Your task to perform on an android device: Open display settings Image 0: 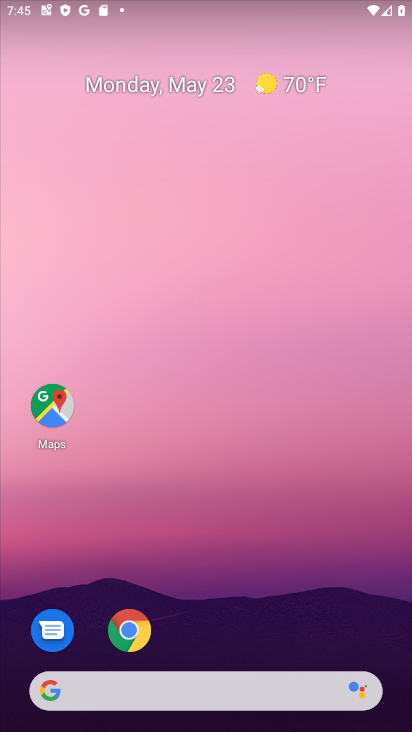
Step 0: drag from (308, 598) to (40, 2)
Your task to perform on an android device: Open display settings Image 1: 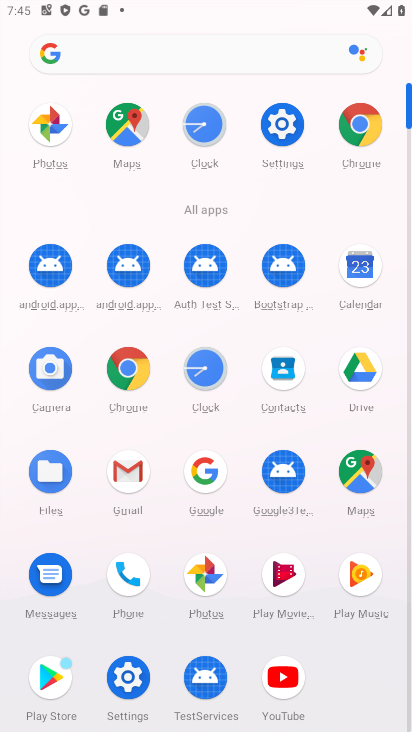
Step 1: click (279, 159)
Your task to perform on an android device: Open display settings Image 2: 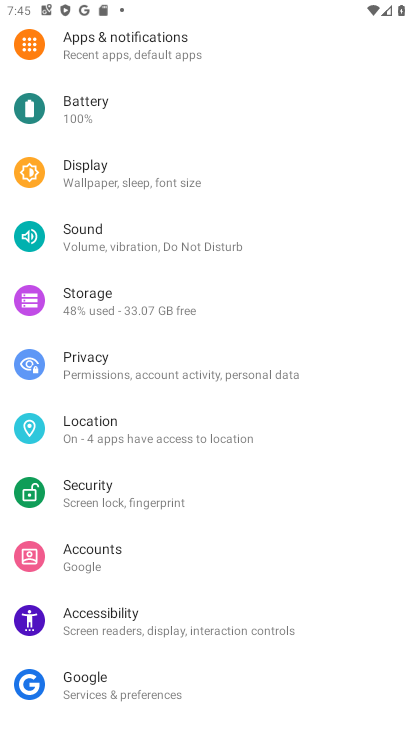
Step 2: click (151, 183)
Your task to perform on an android device: Open display settings Image 3: 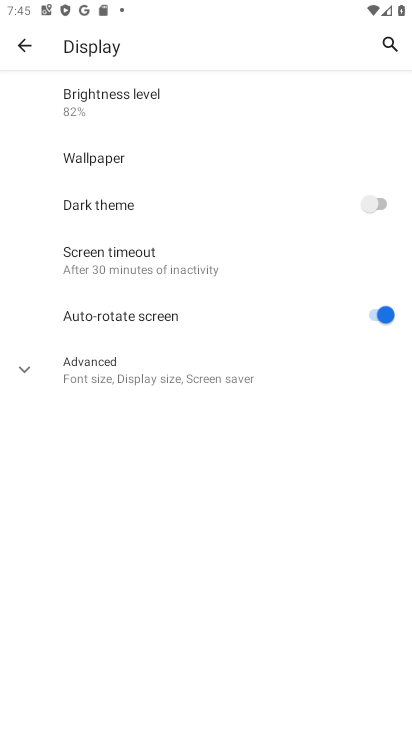
Step 3: task complete